Your task to perform on an android device: uninstall "Firefox Browser" Image 0: 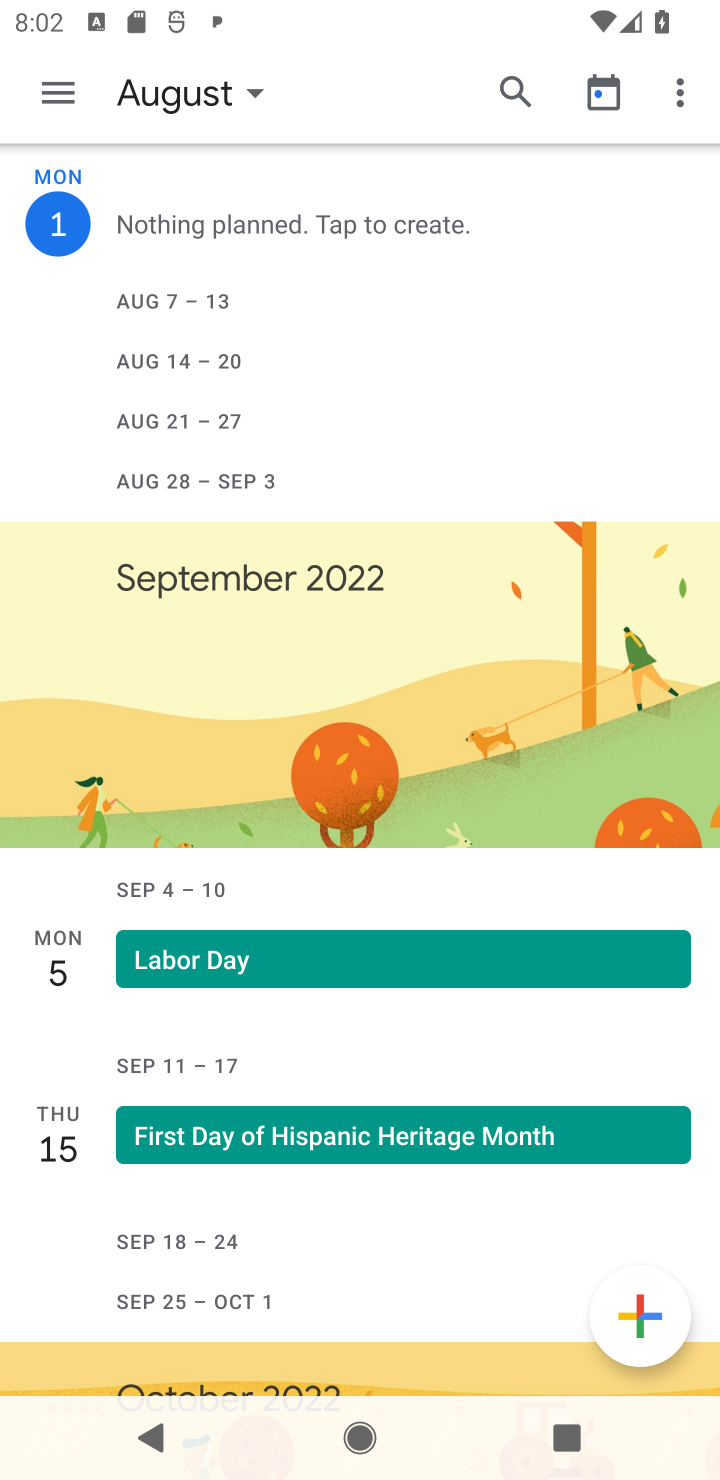
Step 0: press home button
Your task to perform on an android device: uninstall "Firefox Browser" Image 1: 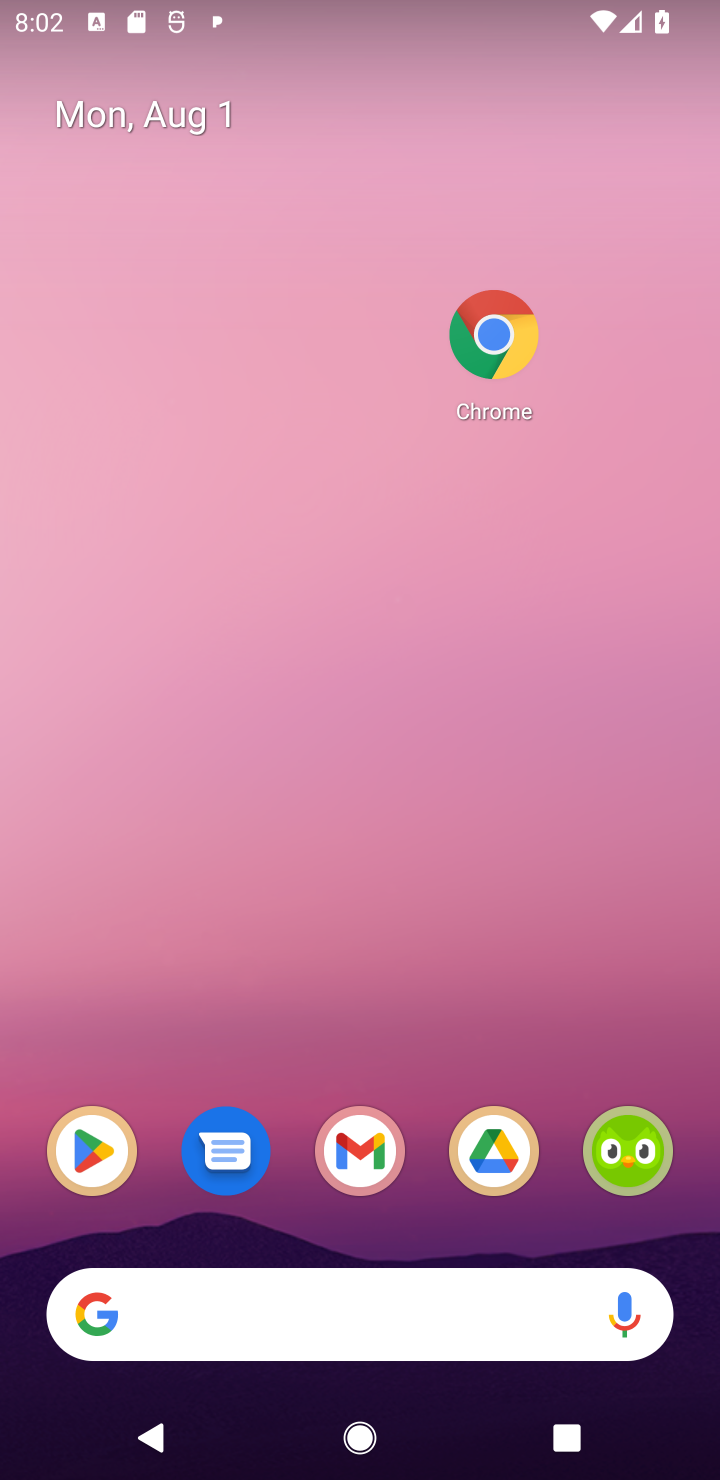
Step 1: click (77, 1151)
Your task to perform on an android device: uninstall "Firefox Browser" Image 2: 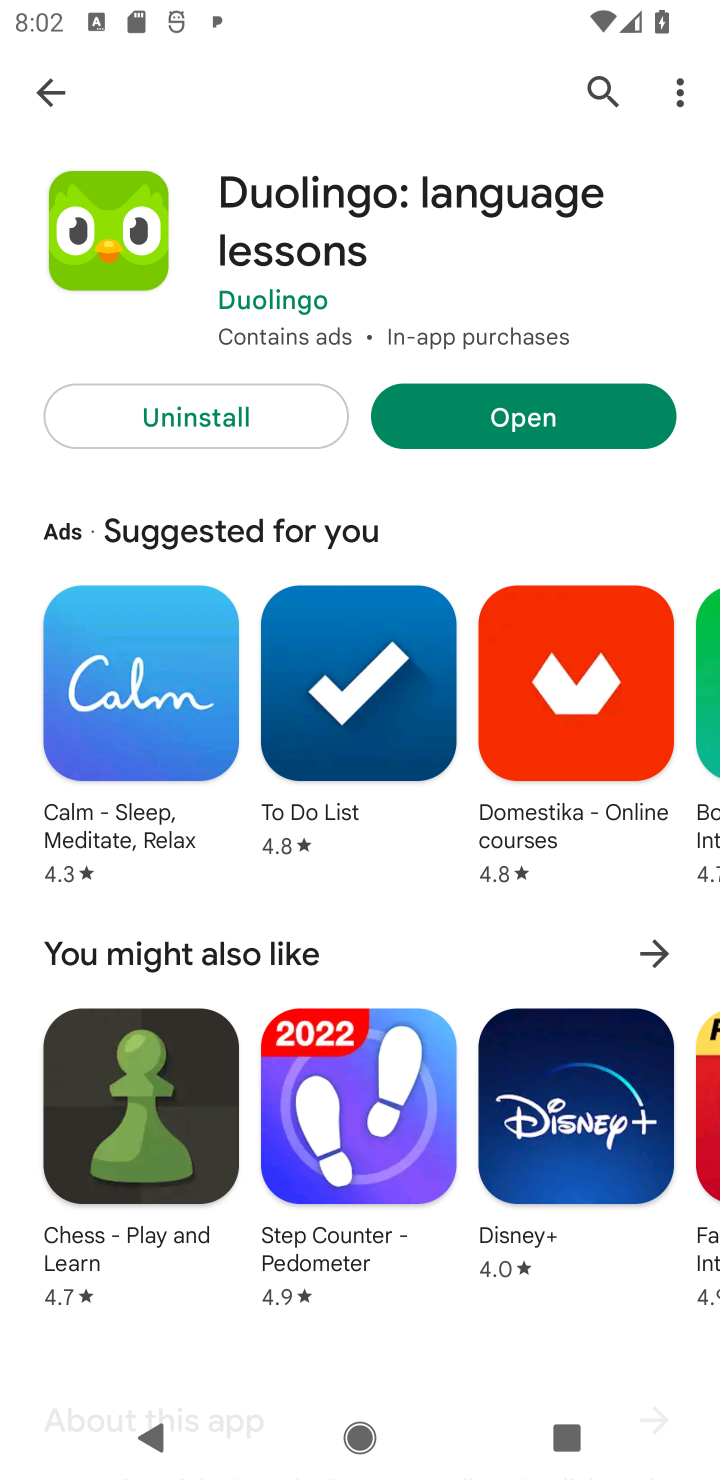
Step 2: click (599, 94)
Your task to perform on an android device: uninstall "Firefox Browser" Image 3: 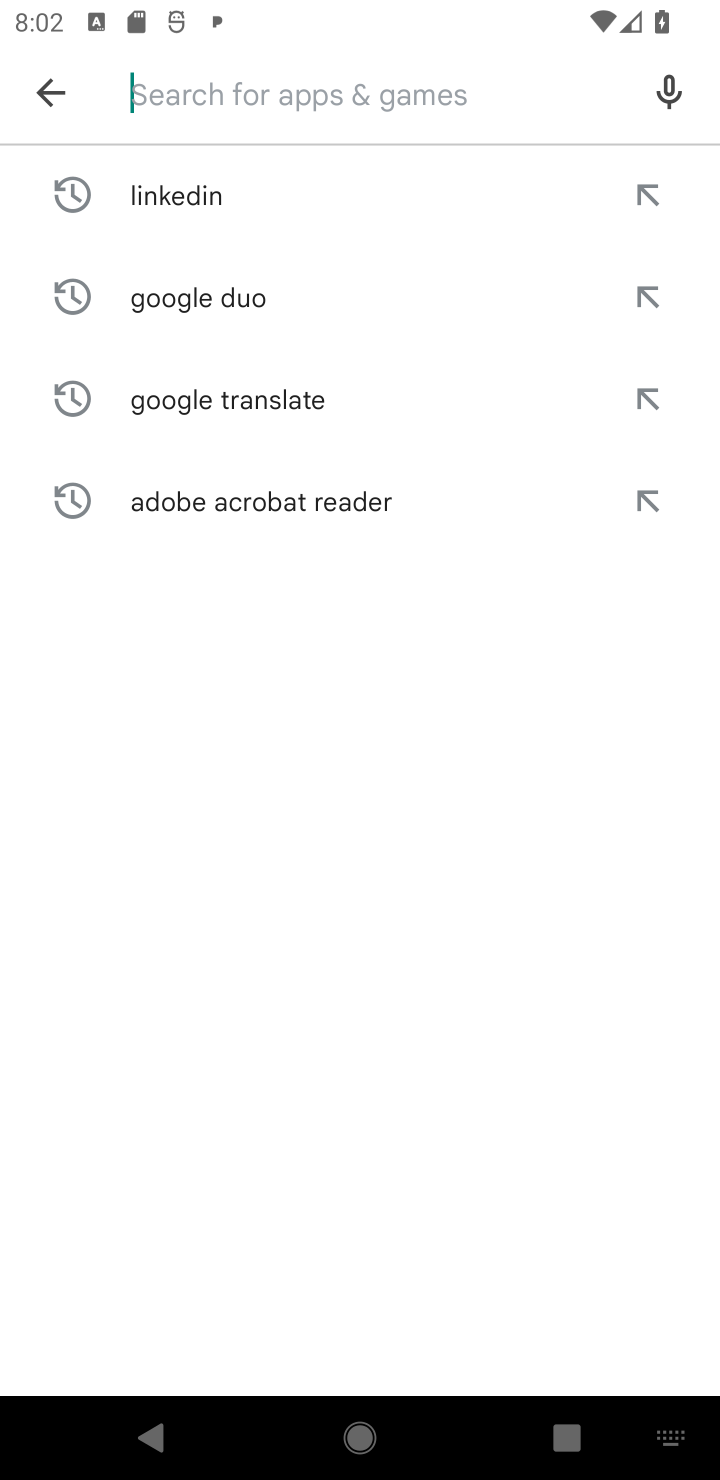
Step 3: type "Firefox Browser"
Your task to perform on an android device: uninstall "Firefox Browser" Image 4: 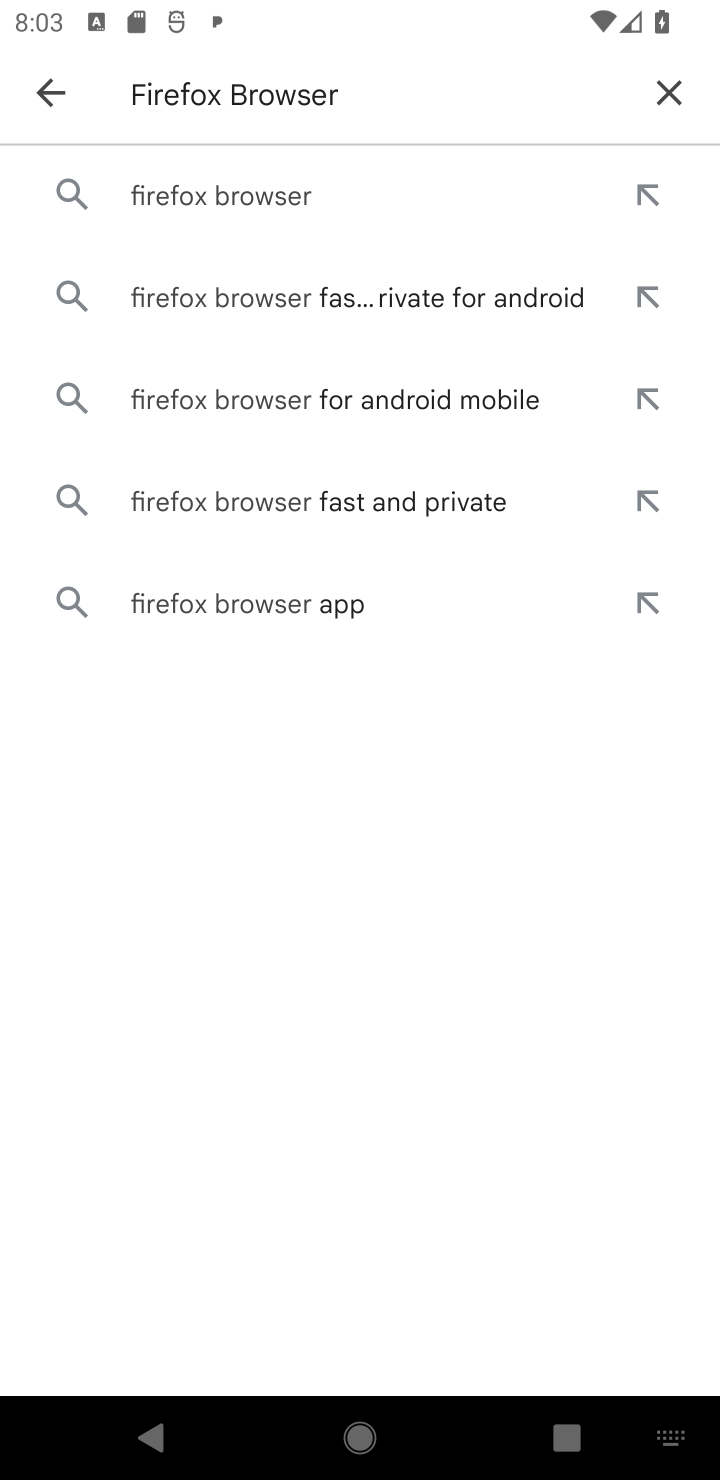
Step 4: click (156, 211)
Your task to perform on an android device: uninstall "Firefox Browser" Image 5: 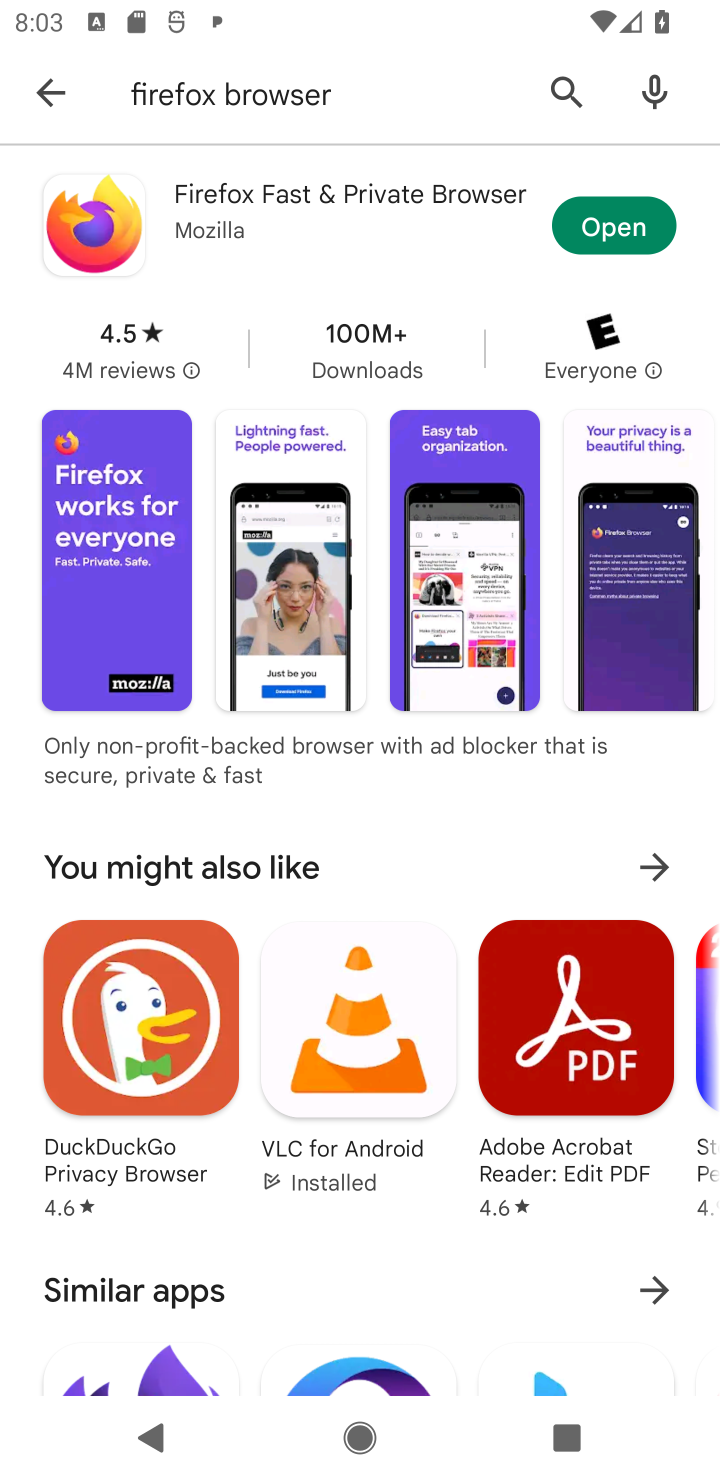
Step 5: click (170, 214)
Your task to perform on an android device: uninstall "Firefox Browser" Image 6: 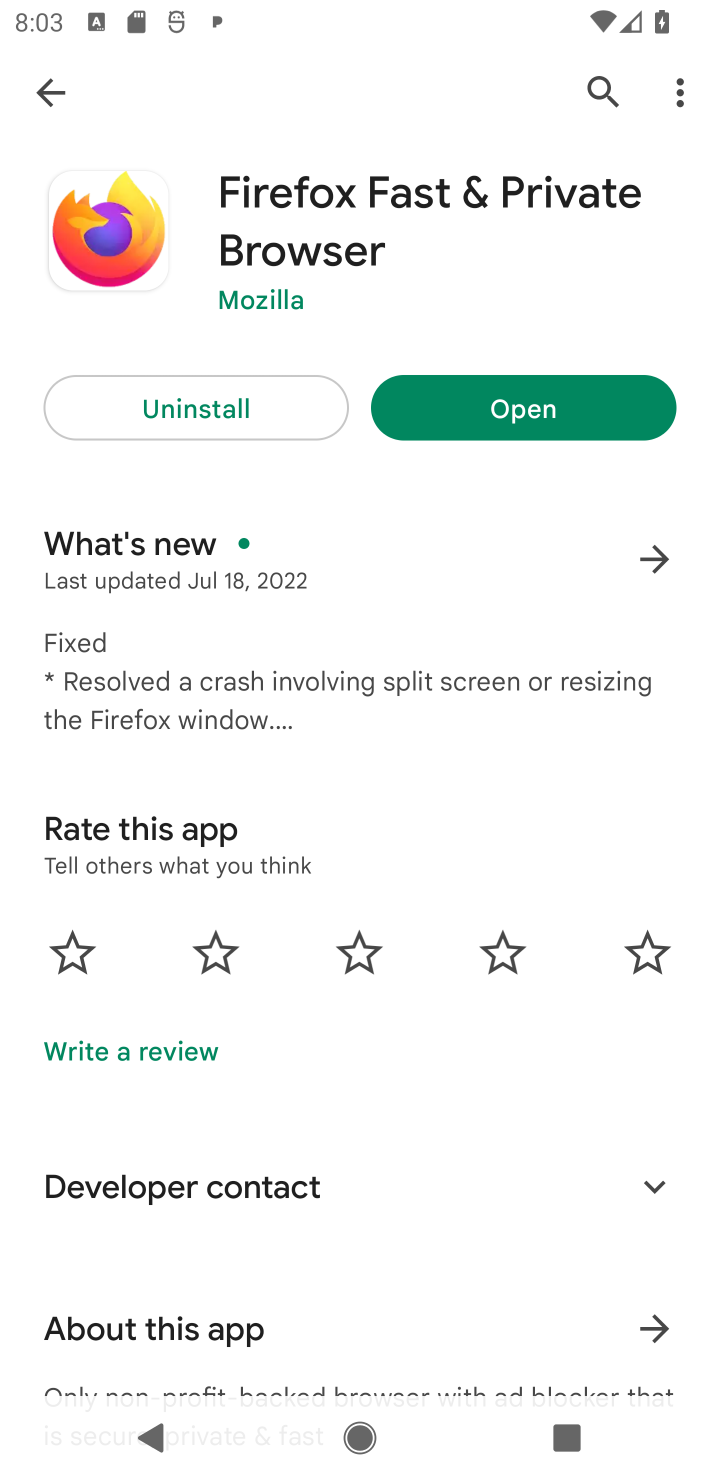
Step 6: click (222, 421)
Your task to perform on an android device: uninstall "Firefox Browser" Image 7: 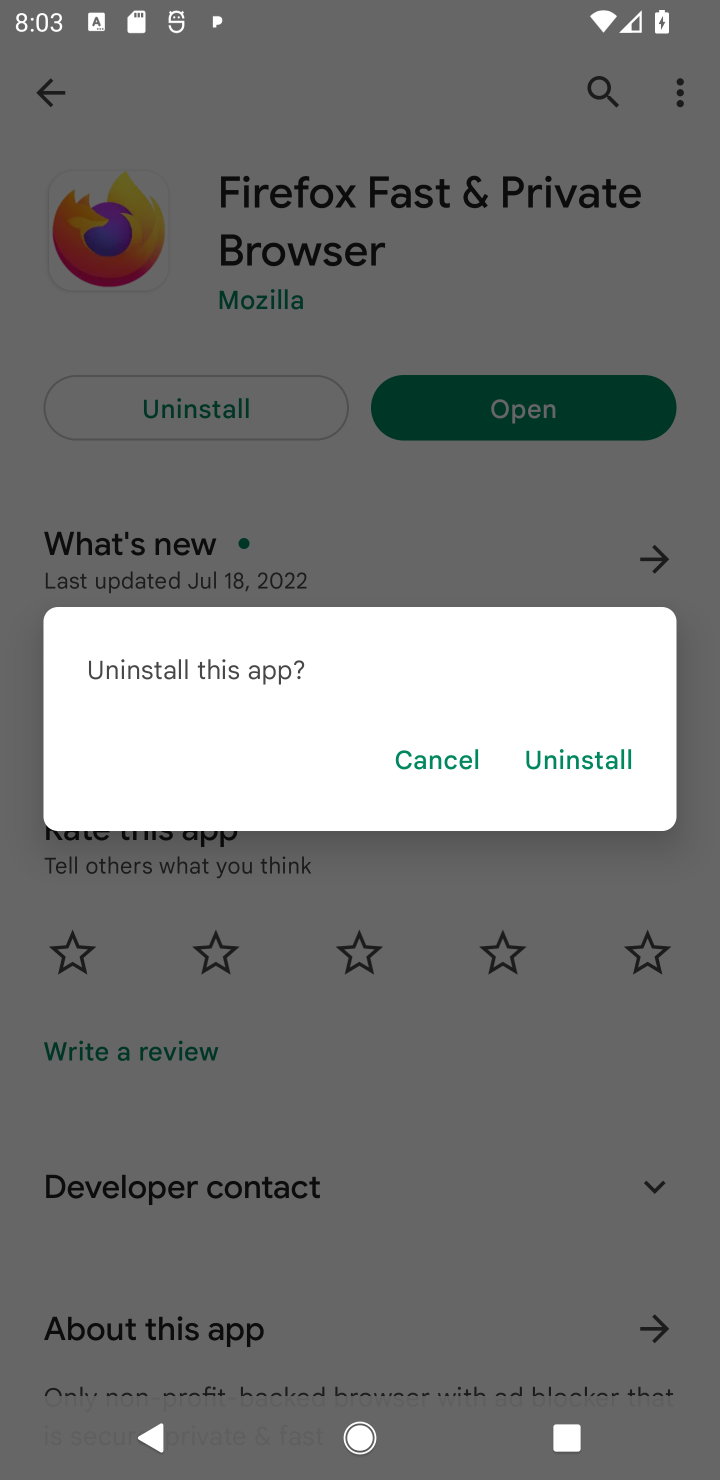
Step 7: click (568, 768)
Your task to perform on an android device: uninstall "Firefox Browser" Image 8: 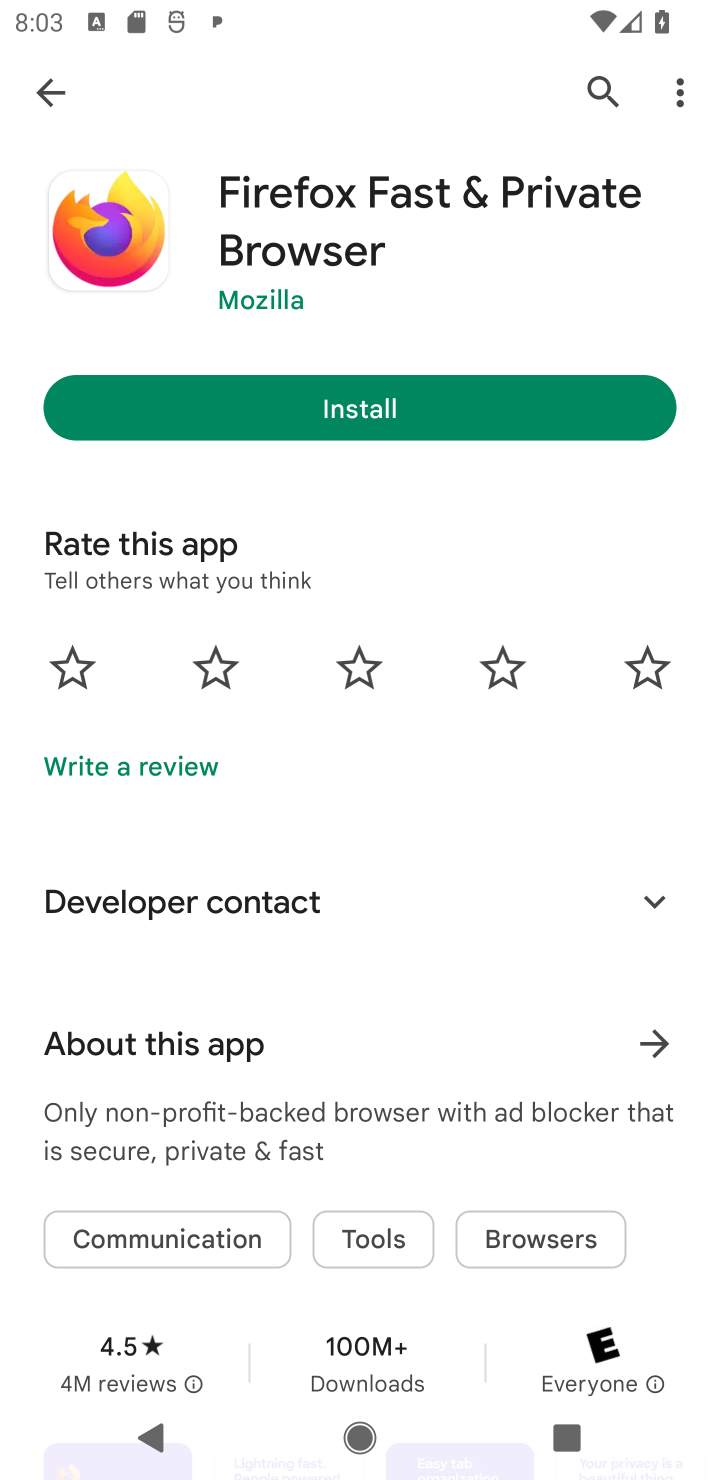
Step 8: task complete